Your task to perform on an android device: Open calendar and show me the third week of next month Image 0: 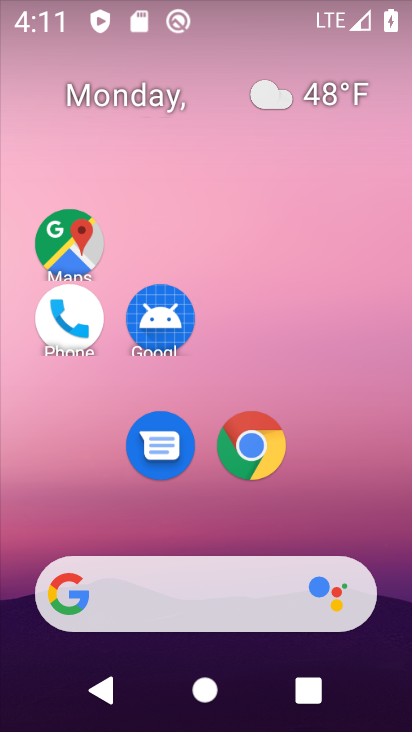
Step 0: click (266, 39)
Your task to perform on an android device: Open calendar and show me the third week of next month Image 1: 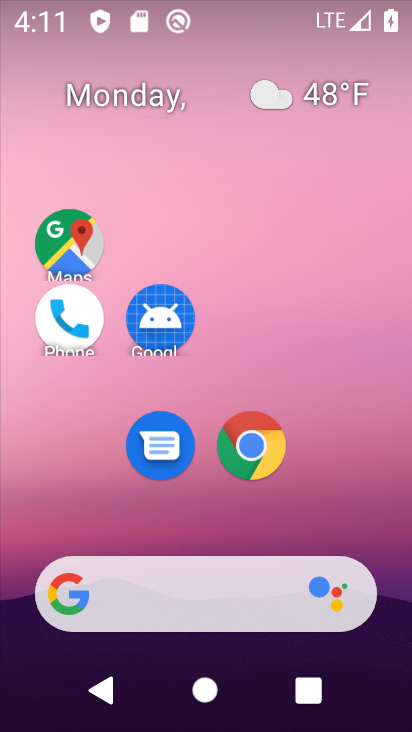
Step 1: drag from (314, 509) to (269, 28)
Your task to perform on an android device: Open calendar and show me the third week of next month Image 2: 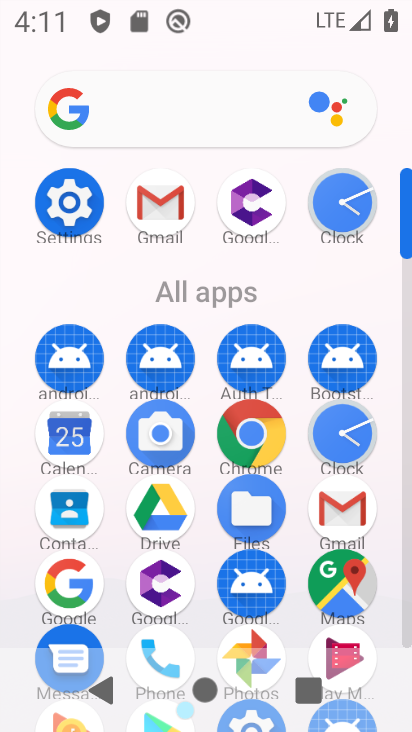
Step 2: click (71, 446)
Your task to perform on an android device: Open calendar and show me the third week of next month Image 3: 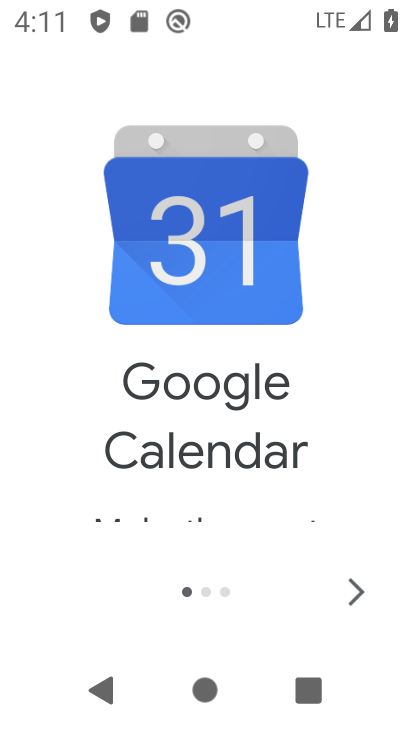
Step 3: click (348, 594)
Your task to perform on an android device: Open calendar and show me the third week of next month Image 4: 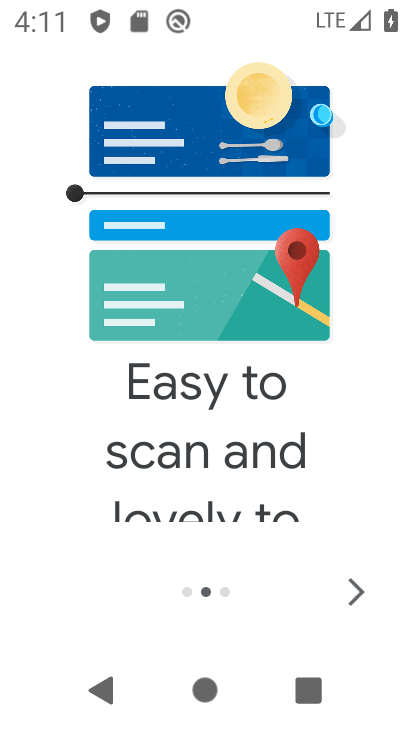
Step 4: click (348, 594)
Your task to perform on an android device: Open calendar and show me the third week of next month Image 5: 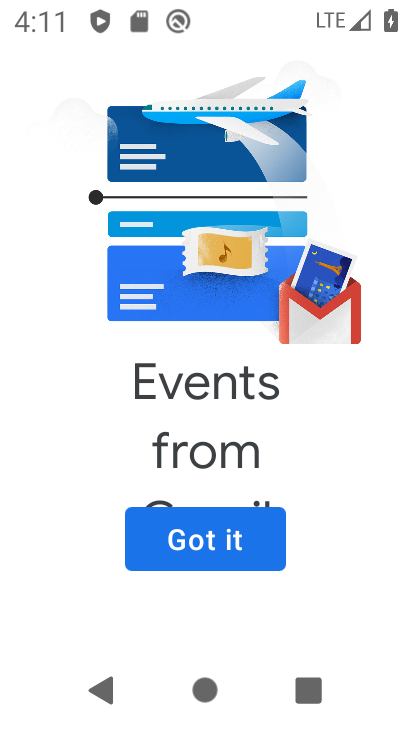
Step 5: click (223, 529)
Your task to perform on an android device: Open calendar and show me the third week of next month Image 6: 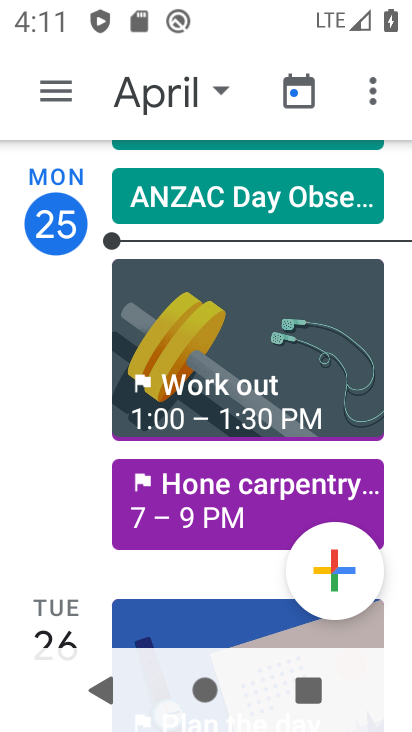
Step 6: click (63, 93)
Your task to perform on an android device: Open calendar and show me the third week of next month Image 7: 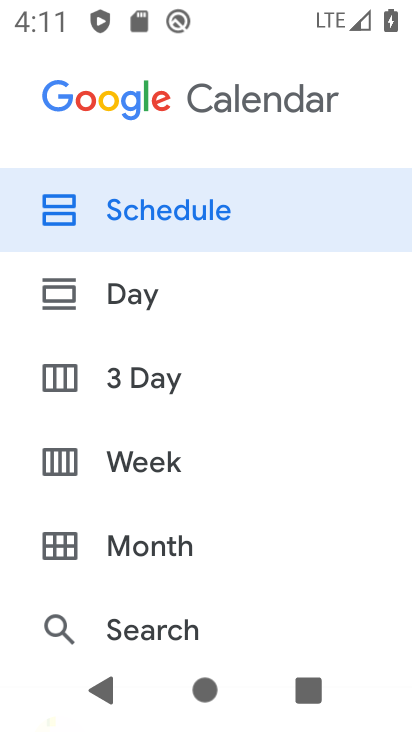
Step 7: click (136, 454)
Your task to perform on an android device: Open calendar and show me the third week of next month Image 8: 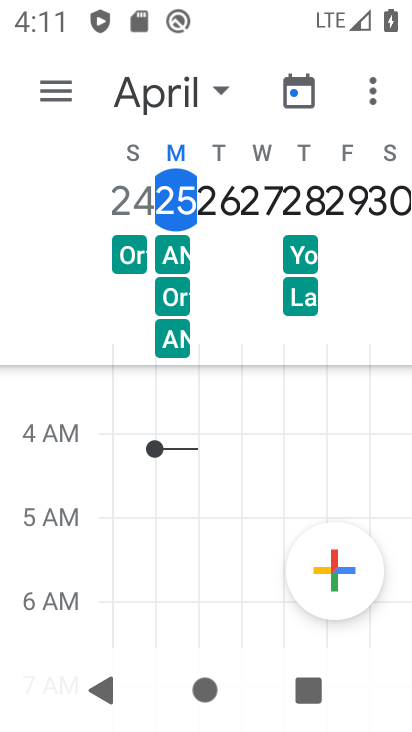
Step 8: click (163, 99)
Your task to perform on an android device: Open calendar and show me the third week of next month Image 9: 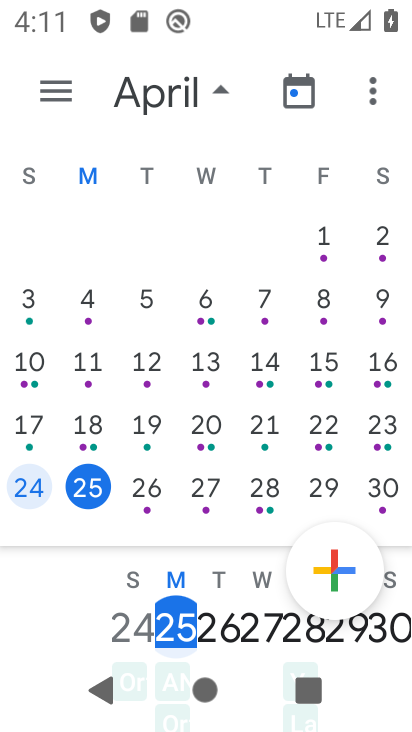
Step 9: drag from (349, 406) to (25, 400)
Your task to perform on an android device: Open calendar and show me the third week of next month Image 10: 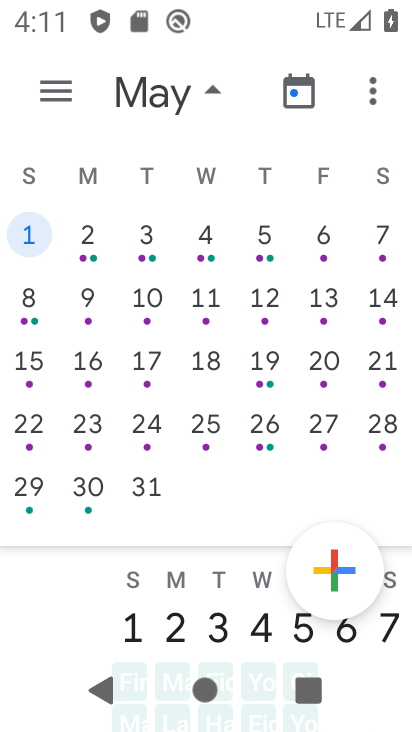
Step 10: click (41, 359)
Your task to perform on an android device: Open calendar and show me the third week of next month Image 11: 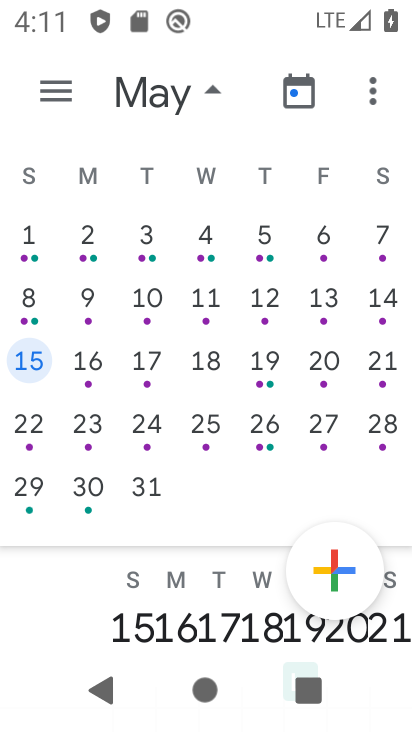
Step 11: task complete